Your task to perform on an android device: turn off airplane mode Image 0: 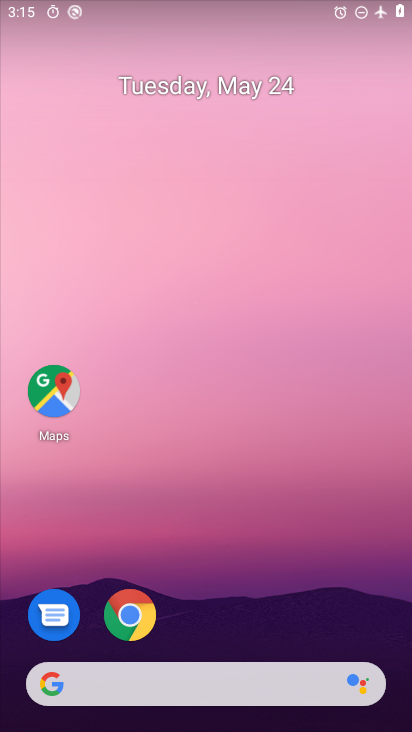
Step 0: drag from (218, 661) to (196, 239)
Your task to perform on an android device: turn off airplane mode Image 1: 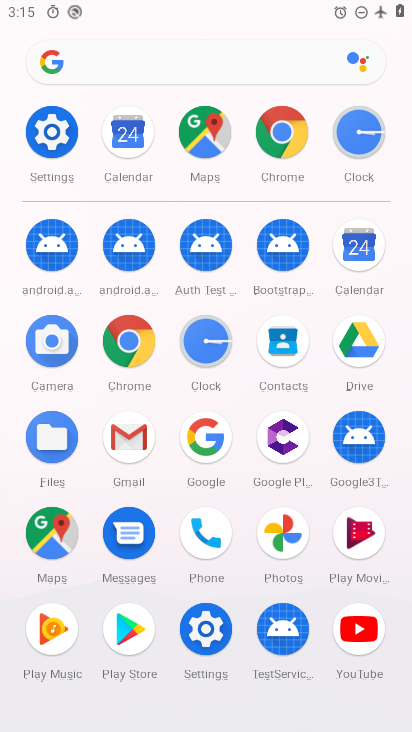
Step 1: click (21, 139)
Your task to perform on an android device: turn off airplane mode Image 2: 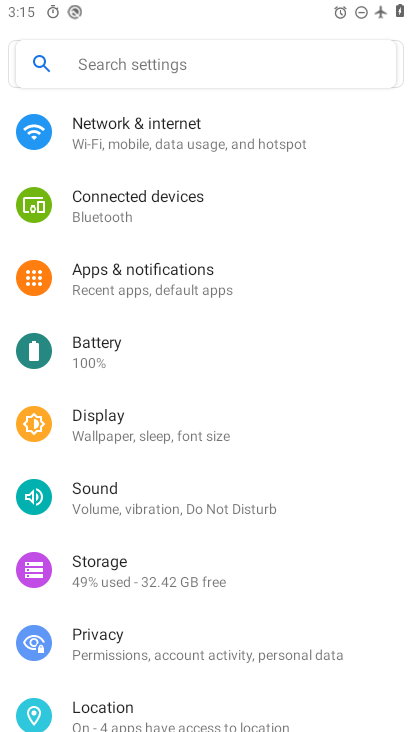
Step 2: click (103, 137)
Your task to perform on an android device: turn off airplane mode Image 3: 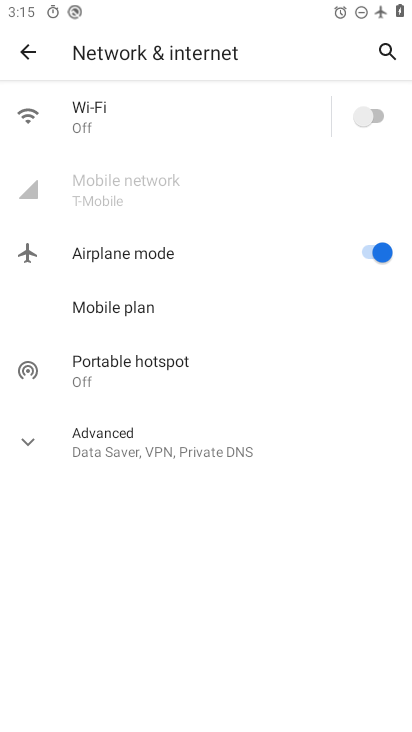
Step 3: click (364, 257)
Your task to perform on an android device: turn off airplane mode Image 4: 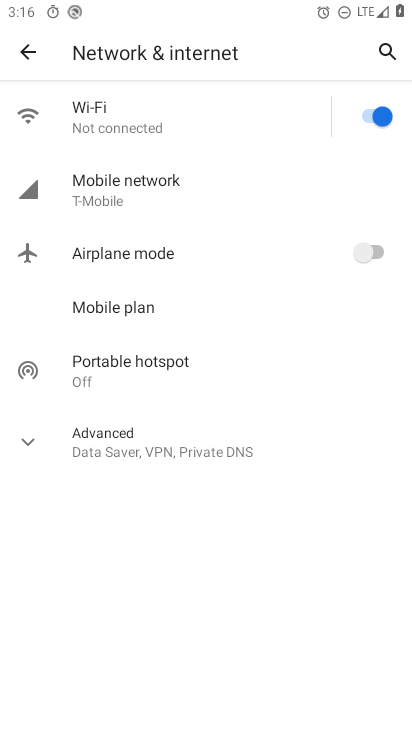
Step 4: task complete